Your task to perform on an android device: check android version Image 0: 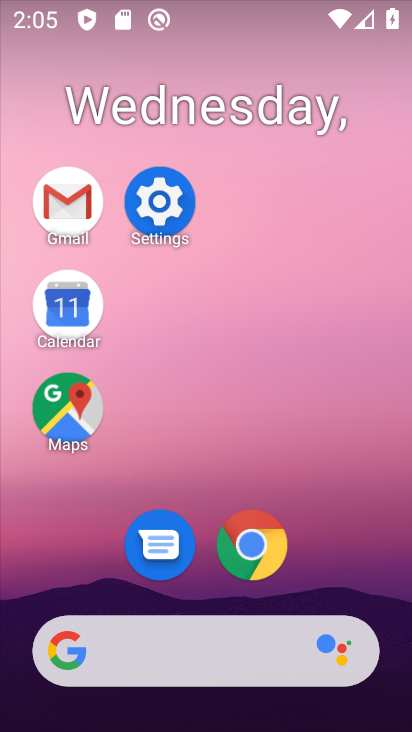
Step 0: click (177, 211)
Your task to perform on an android device: check android version Image 1: 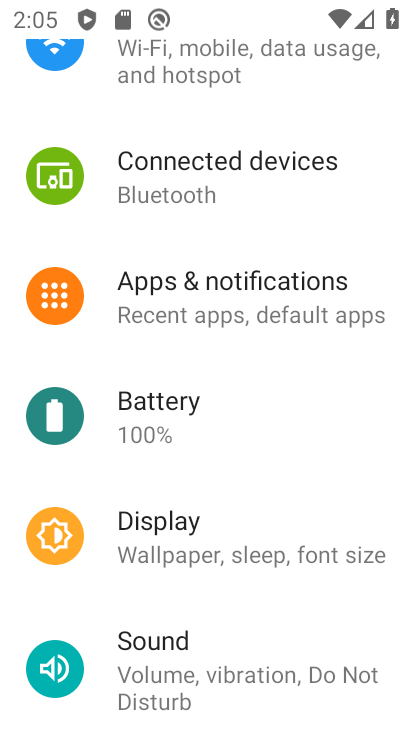
Step 1: drag from (273, 642) to (363, 146)
Your task to perform on an android device: check android version Image 2: 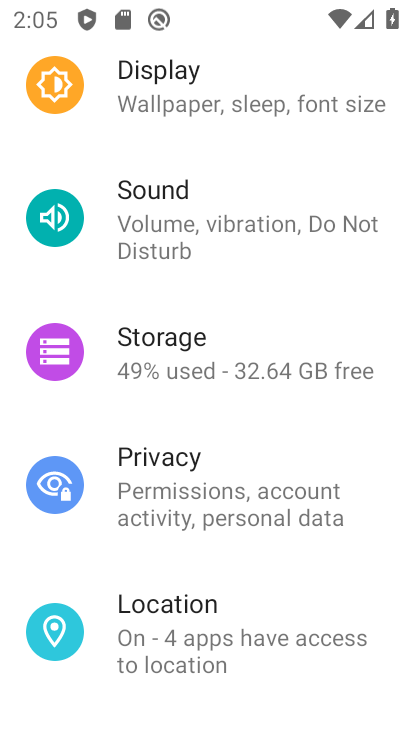
Step 2: drag from (265, 621) to (305, 145)
Your task to perform on an android device: check android version Image 3: 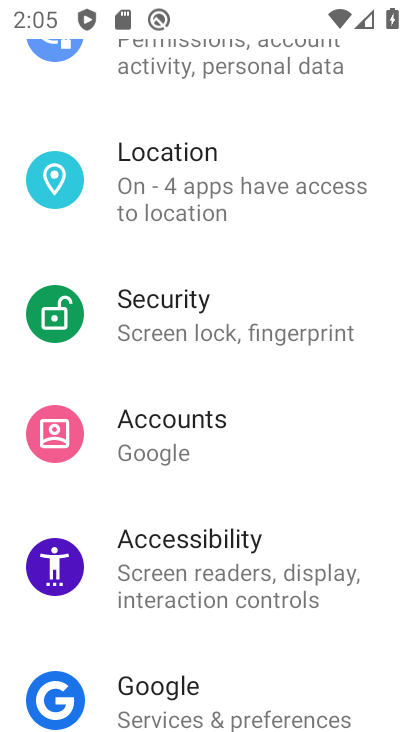
Step 3: drag from (256, 651) to (284, 184)
Your task to perform on an android device: check android version Image 4: 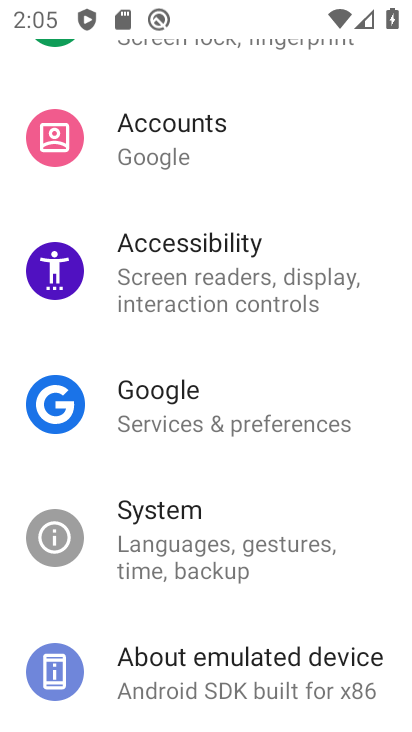
Step 4: click (272, 662)
Your task to perform on an android device: check android version Image 5: 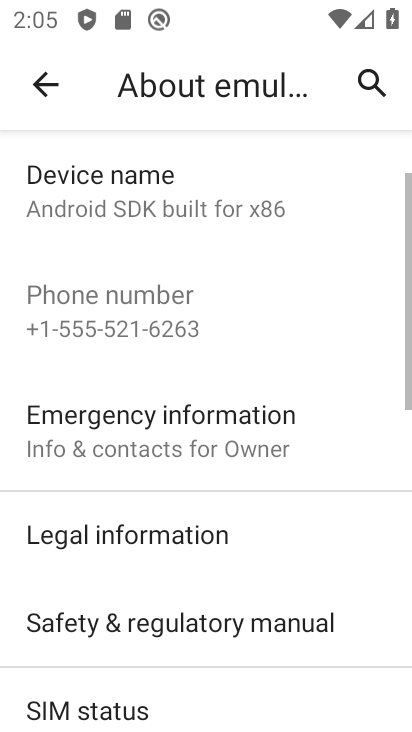
Step 5: drag from (313, 593) to (310, 149)
Your task to perform on an android device: check android version Image 6: 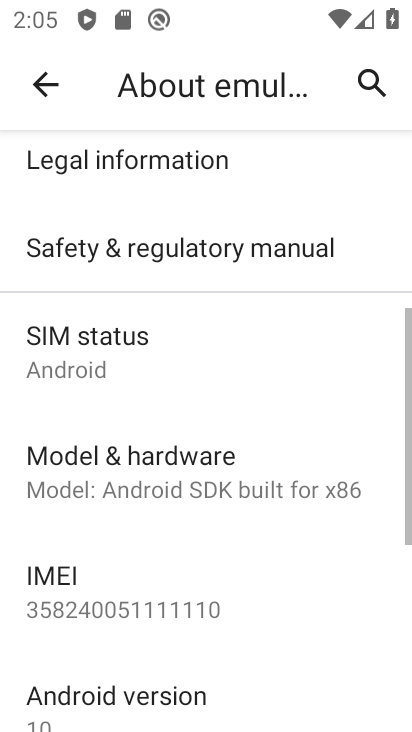
Step 6: drag from (232, 634) to (308, 402)
Your task to perform on an android device: check android version Image 7: 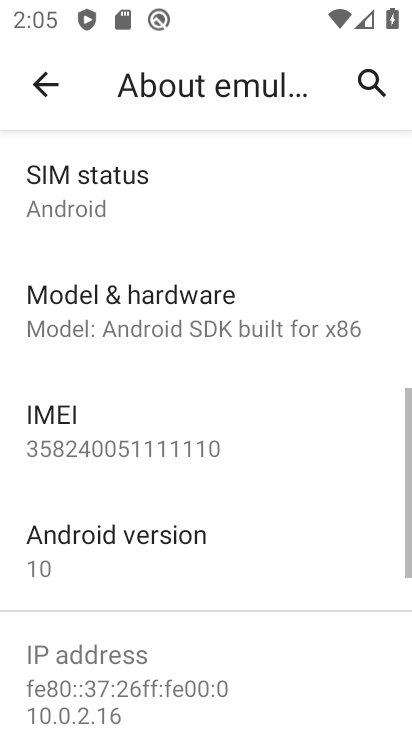
Step 7: click (212, 520)
Your task to perform on an android device: check android version Image 8: 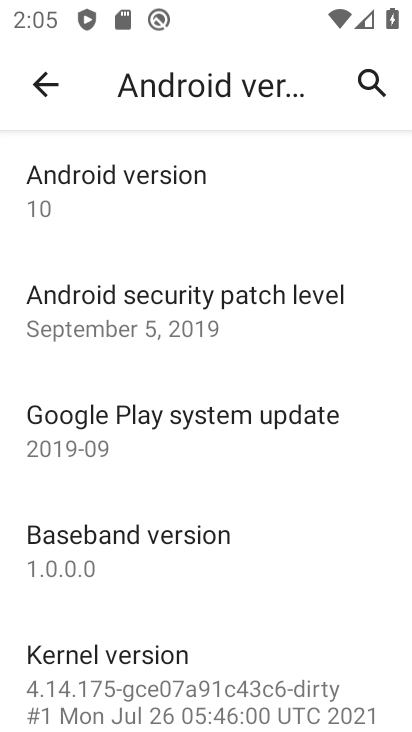
Step 8: task complete